Your task to perform on an android device: Go to battery settings Image 0: 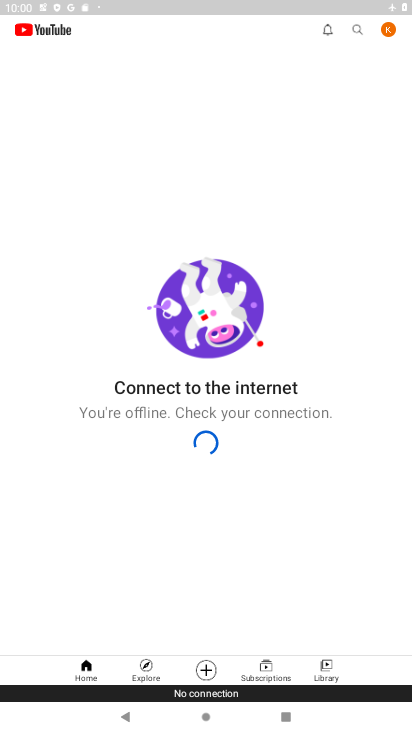
Step 0: press back button
Your task to perform on an android device: Go to battery settings Image 1: 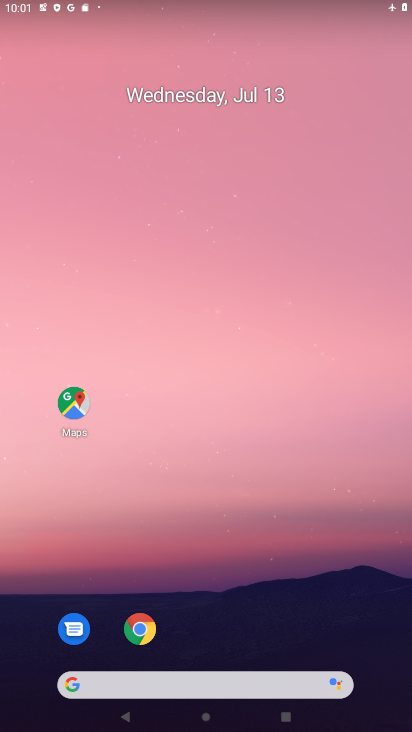
Step 1: drag from (289, 646) to (256, 1)
Your task to perform on an android device: Go to battery settings Image 2: 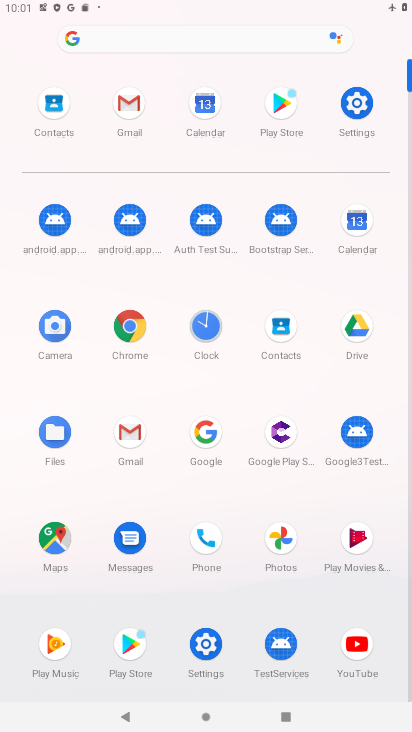
Step 2: click (347, 107)
Your task to perform on an android device: Go to battery settings Image 3: 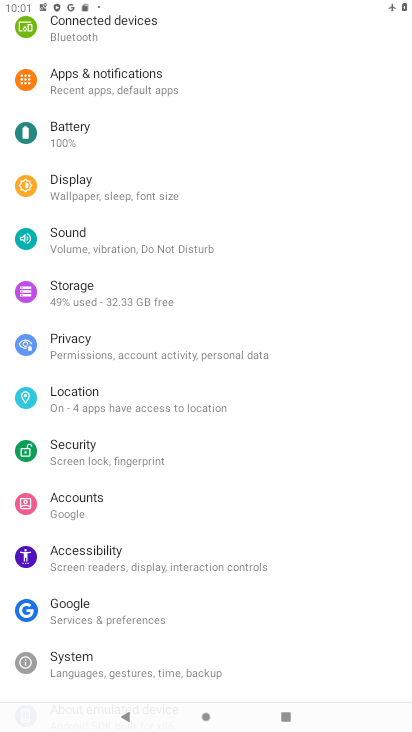
Step 3: click (63, 141)
Your task to perform on an android device: Go to battery settings Image 4: 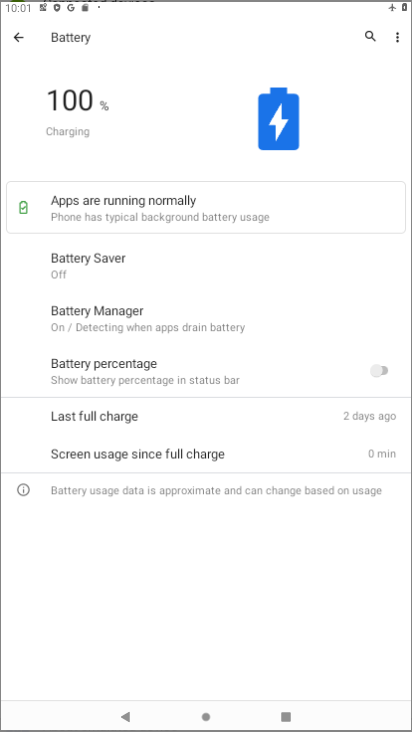
Step 4: task complete